Your task to perform on an android device: add a contact in the contacts app Image 0: 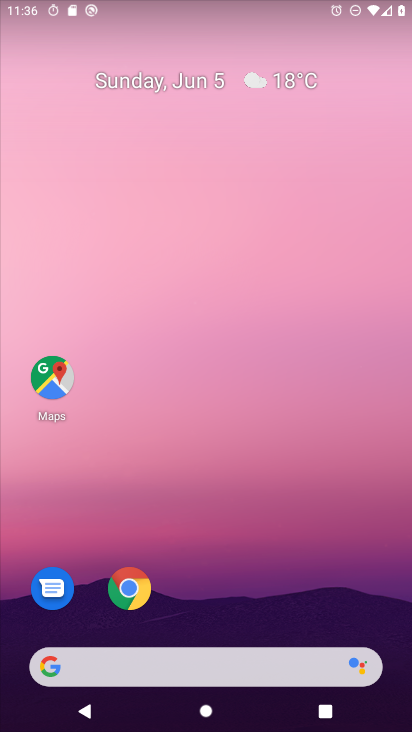
Step 0: drag from (299, 567) to (303, 236)
Your task to perform on an android device: add a contact in the contacts app Image 1: 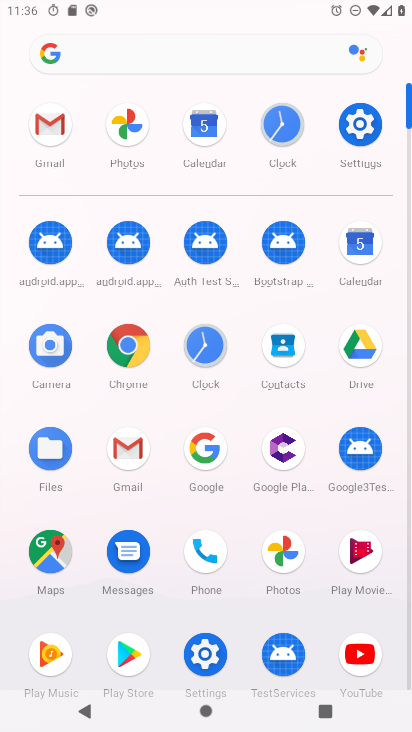
Step 1: click (297, 352)
Your task to perform on an android device: add a contact in the contacts app Image 2: 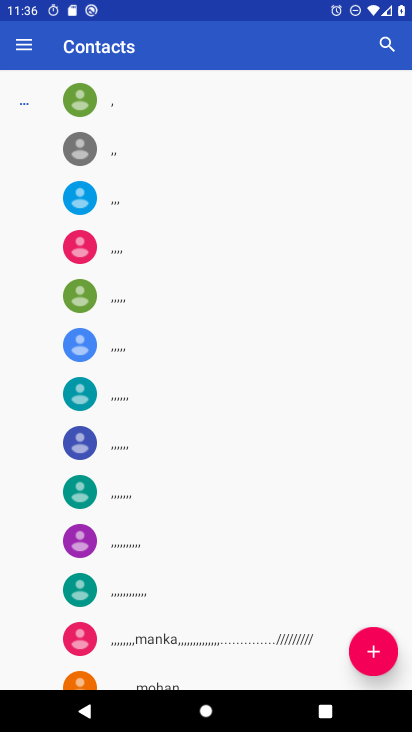
Step 2: click (374, 668)
Your task to perform on an android device: add a contact in the contacts app Image 3: 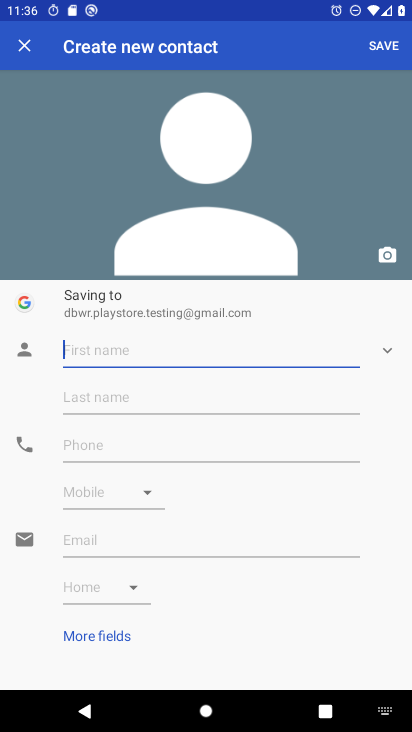
Step 3: click (164, 351)
Your task to perform on an android device: add a contact in the contacts app Image 4: 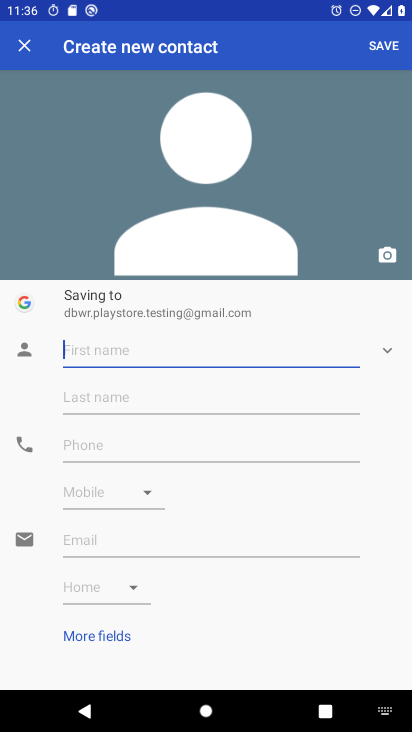
Step 4: type "my lolo"
Your task to perform on an android device: add a contact in the contacts app Image 5: 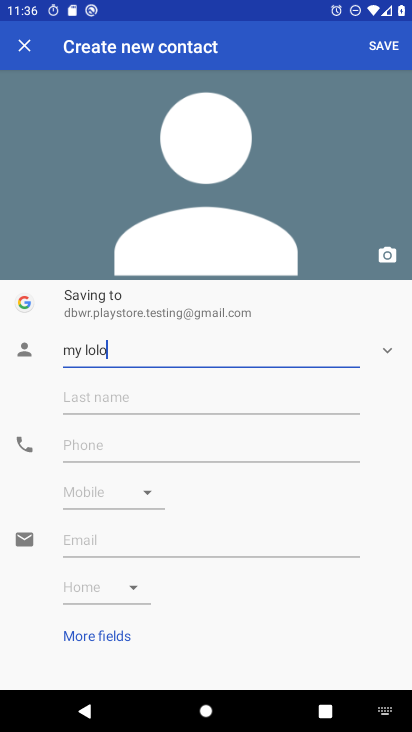
Step 5: click (209, 456)
Your task to perform on an android device: add a contact in the contacts app Image 6: 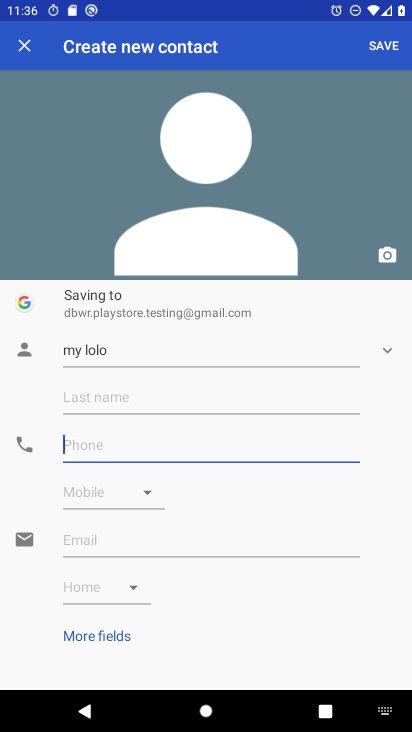
Step 6: type "1234567890"
Your task to perform on an android device: add a contact in the contacts app Image 7: 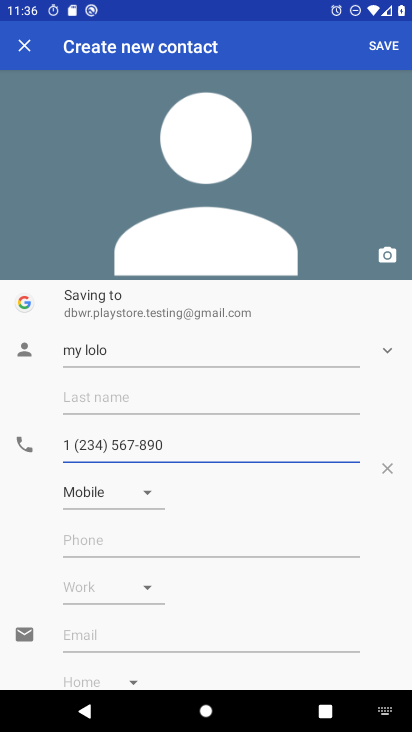
Step 7: click (382, 56)
Your task to perform on an android device: add a contact in the contacts app Image 8: 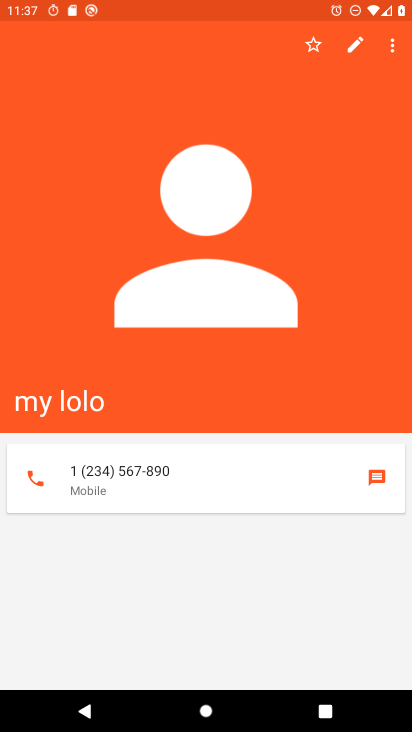
Step 8: task complete